Your task to perform on an android device: Go to sound settings Image 0: 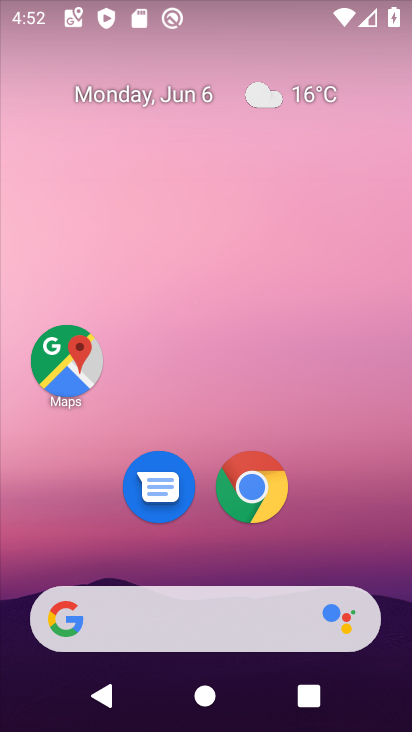
Step 0: drag from (213, 538) to (213, 51)
Your task to perform on an android device: Go to sound settings Image 1: 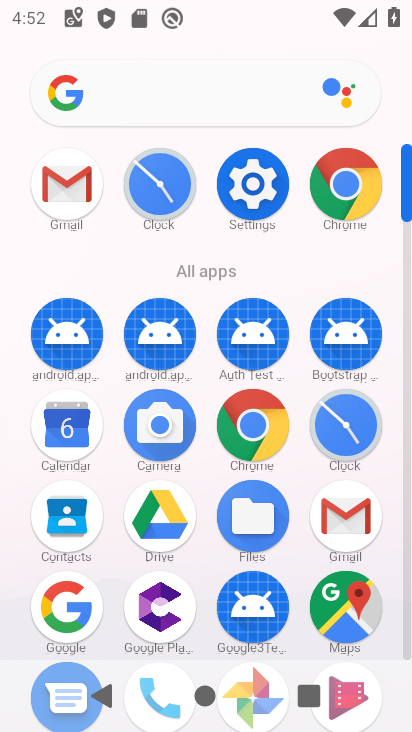
Step 1: click (246, 183)
Your task to perform on an android device: Go to sound settings Image 2: 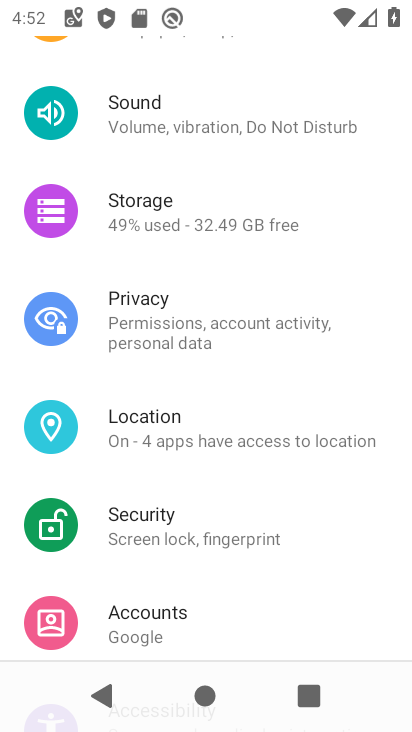
Step 2: click (174, 121)
Your task to perform on an android device: Go to sound settings Image 3: 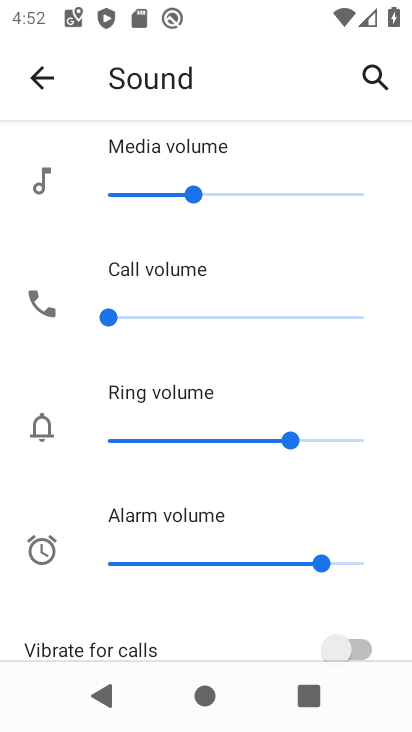
Step 3: task complete